Your task to perform on an android device: turn notification dots on Image 0: 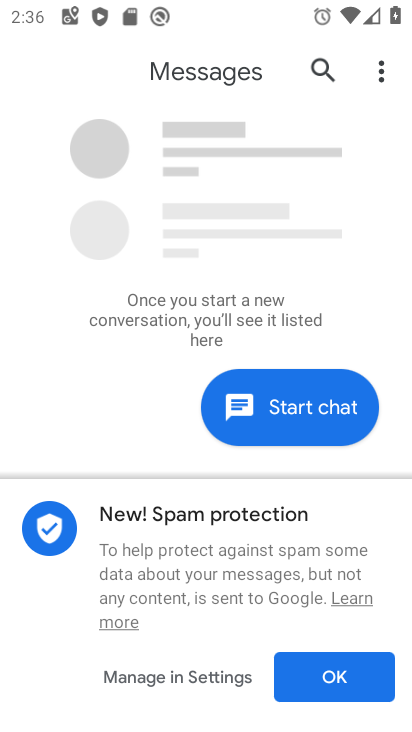
Step 0: press home button
Your task to perform on an android device: turn notification dots on Image 1: 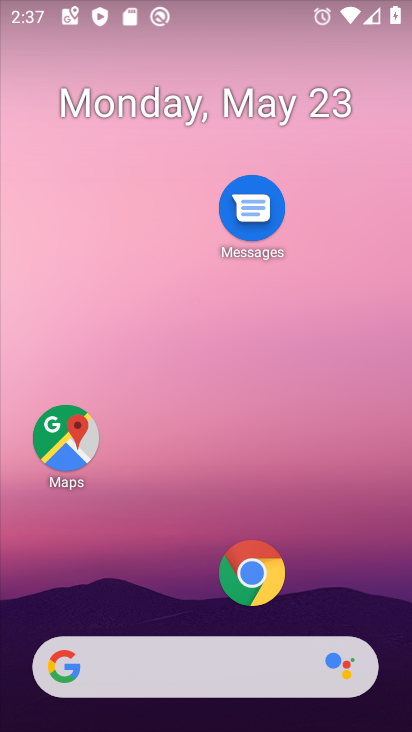
Step 1: drag from (217, 628) to (275, 34)
Your task to perform on an android device: turn notification dots on Image 2: 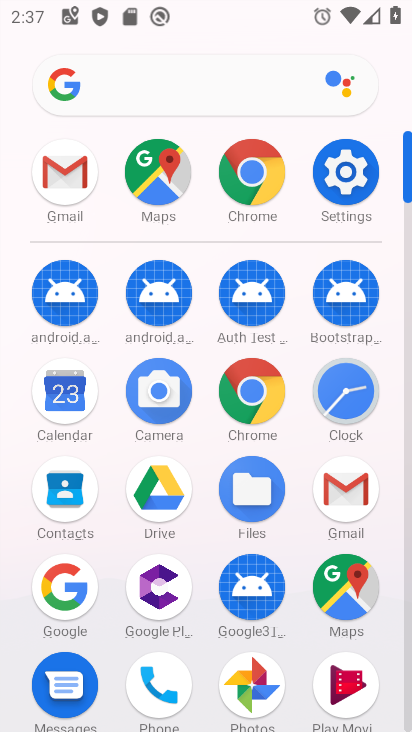
Step 2: click (340, 187)
Your task to perform on an android device: turn notification dots on Image 3: 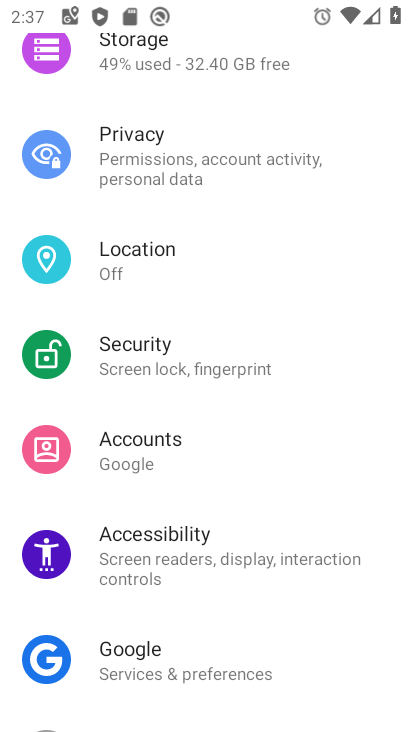
Step 3: drag from (244, 194) to (245, 717)
Your task to perform on an android device: turn notification dots on Image 4: 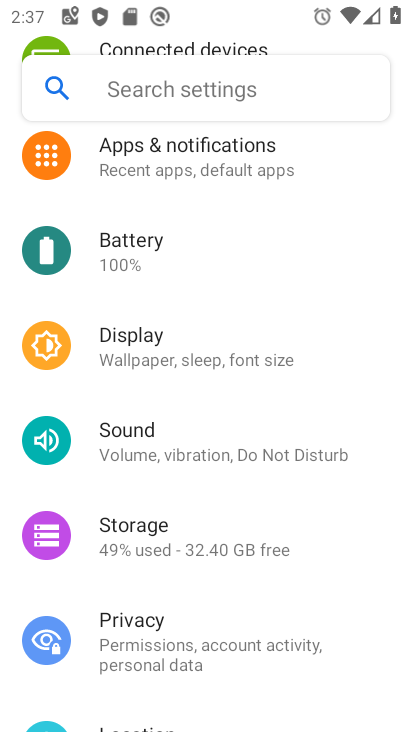
Step 4: drag from (241, 228) to (264, 544)
Your task to perform on an android device: turn notification dots on Image 5: 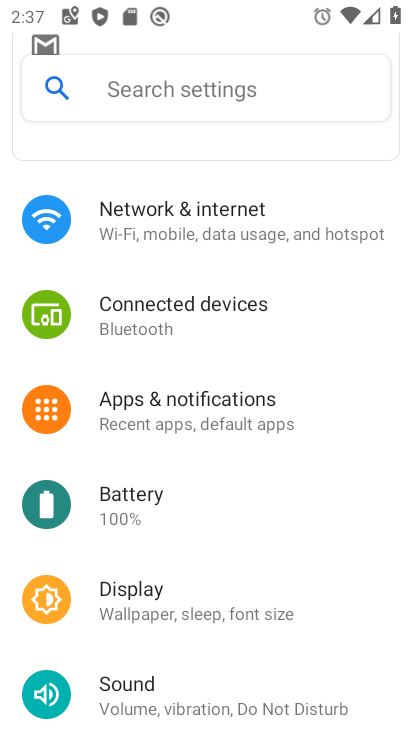
Step 5: click (227, 413)
Your task to perform on an android device: turn notification dots on Image 6: 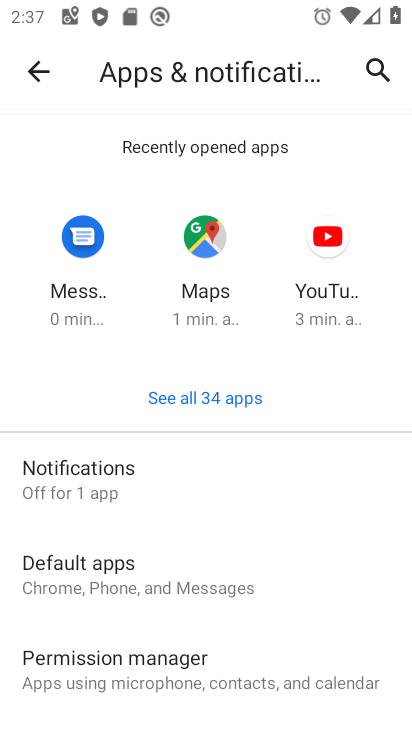
Step 6: drag from (245, 664) to (206, 181)
Your task to perform on an android device: turn notification dots on Image 7: 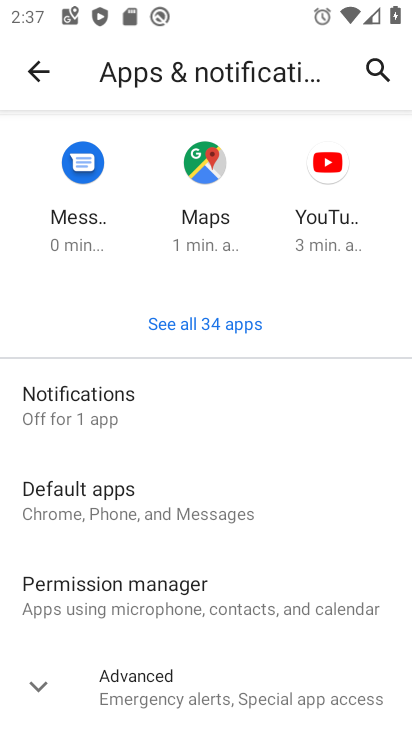
Step 7: click (188, 693)
Your task to perform on an android device: turn notification dots on Image 8: 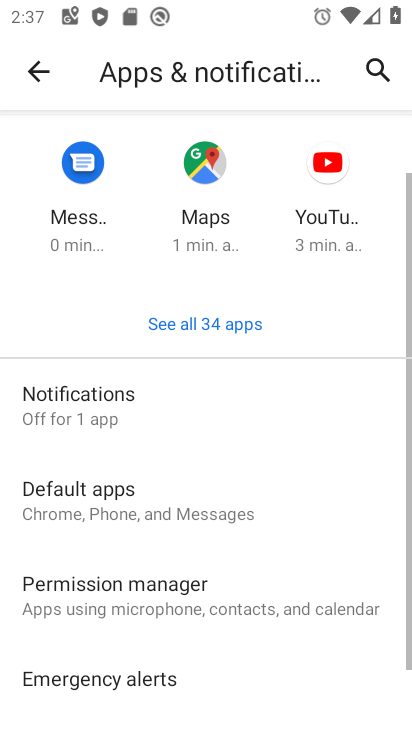
Step 8: drag from (251, 681) to (233, 255)
Your task to perform on an android device: turn notification dots on Image 9: 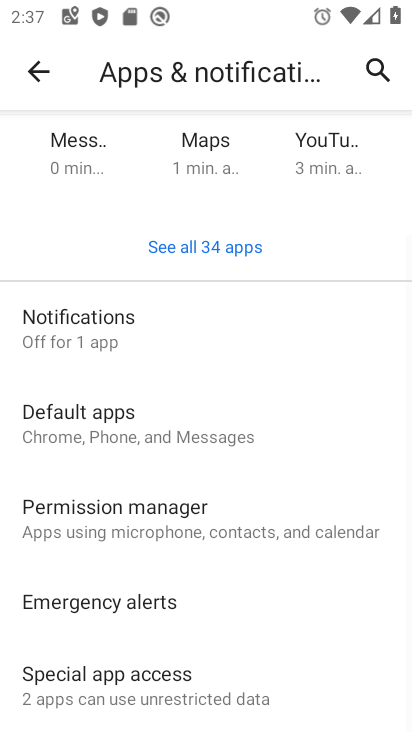
Step 9: click (75, 326)
Your task to perform on an android device: turn notification dots on Image 10: 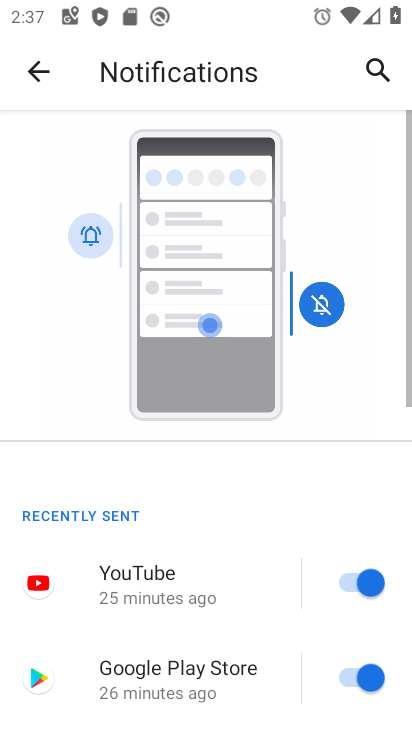
Step 10: drag from (236, 656) to (250, 74)
Your task to perform on an android device: turn notification dots on Image 11: 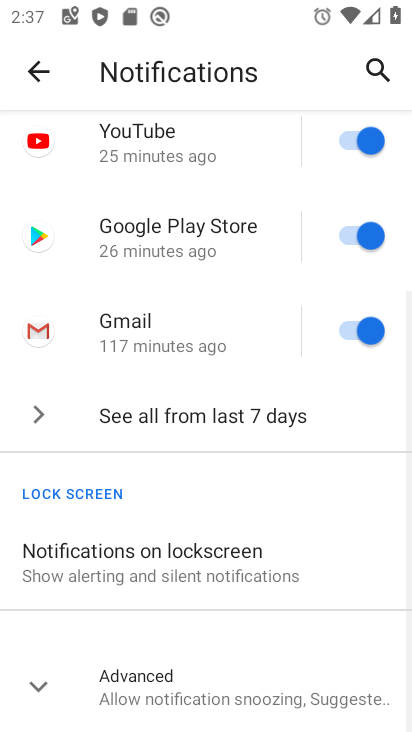
Step 11: drag from (275, 686) to (287, 348)
Your task to perform on an android device: turn notification dots on Image 12: 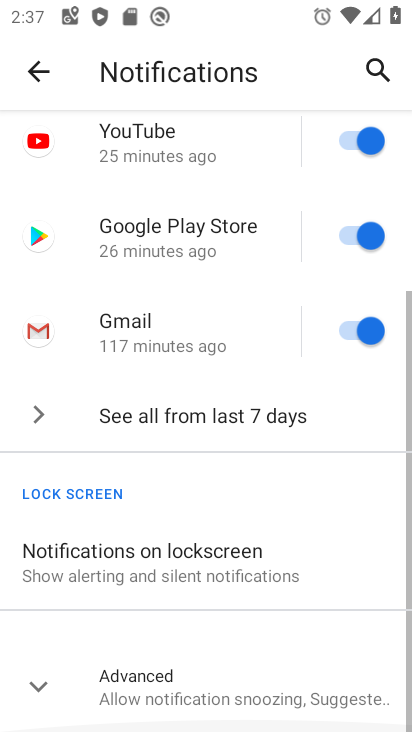
Step 12: click (255, 680)
Your task to perform on an android device: turn notification dots on Image 13: 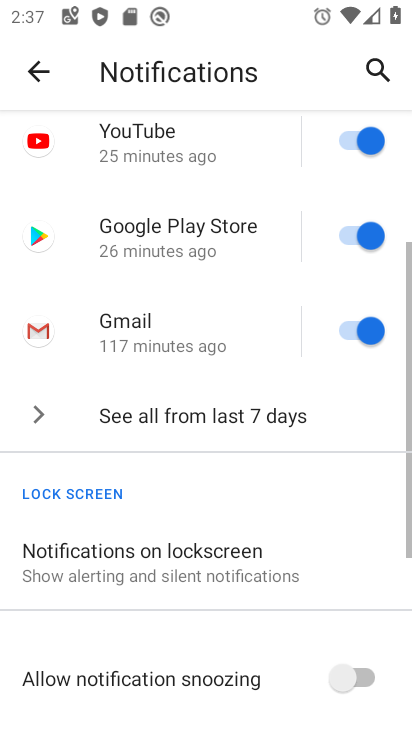
Step 13: drag from (253, 673) to (286, 205)
Your task to perform on an android device: turn notification dots on Image 14: 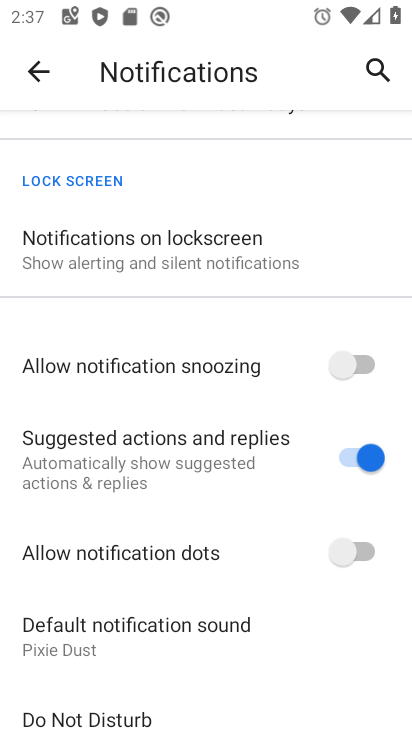
Step 14: click (362, 554)
Your task to perform on an android device: turn notification dots on Image 15: 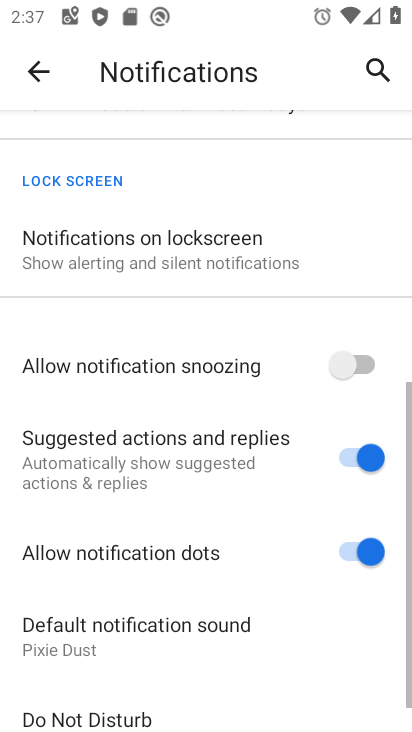
Step 15: task complete